Your task to perform on an android device: toggle airplane mode Image 0: 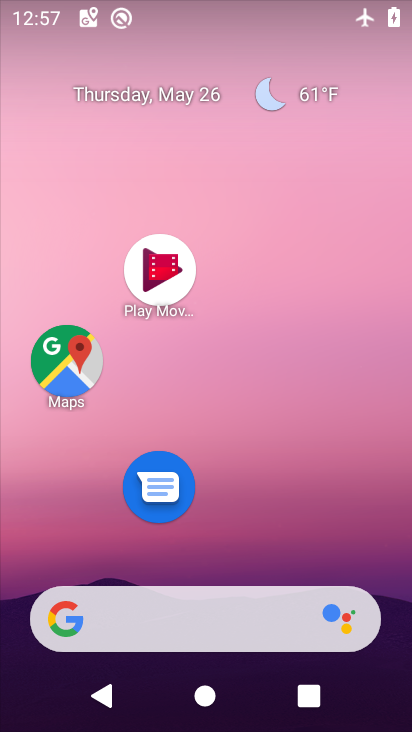
Step 0: drag from (274, 716) to (264, 261)
Your task to perform on an android device: toggle airplane mode Image 1: 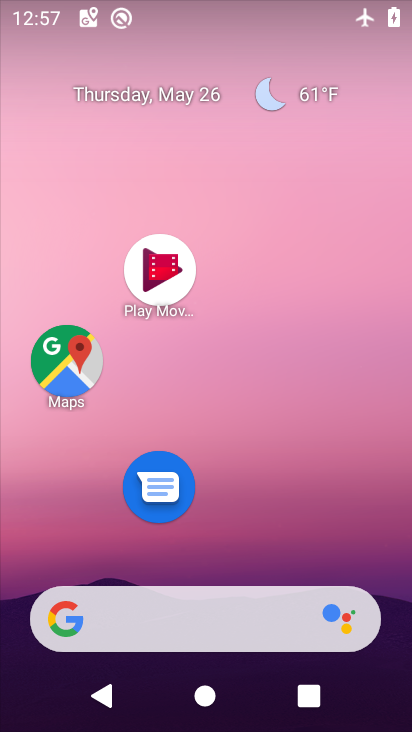
Step 1: drag from (222, 296) to (207, 154)
Your task to perform on an android device: toggle airplane mode Image 2: 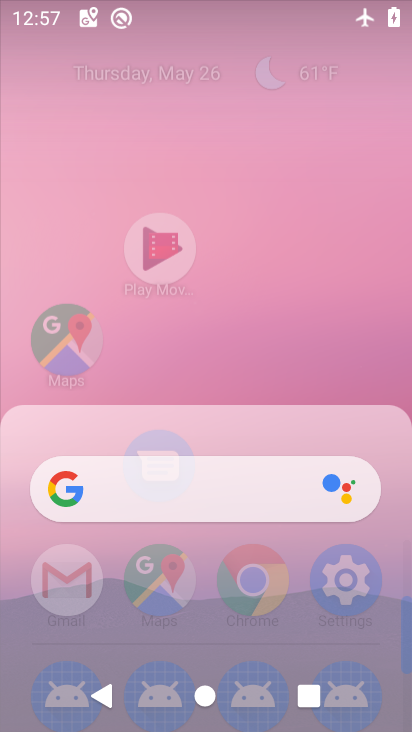
Step 2: click (246, 130)
Your task to perform on an android device: toggle airplane mode Image 3: 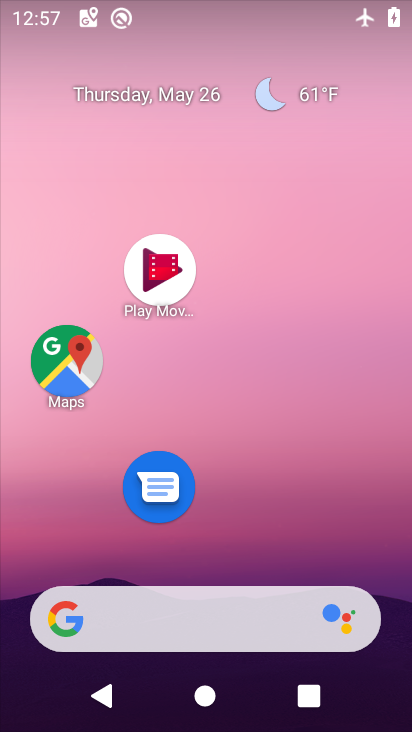
Step 3: drag from (245, 264) to (184, 9)
Your task to perform on an android device: toggle airplane mode Image 4: 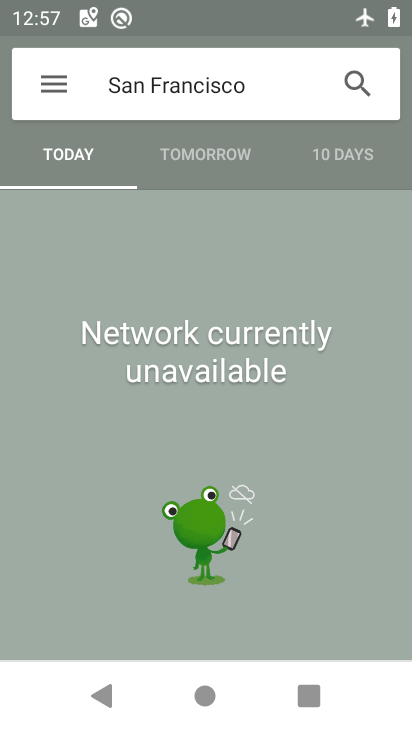
Step 4: press back button
Your task to perform on an android device: toggle airplane mode Image 5: 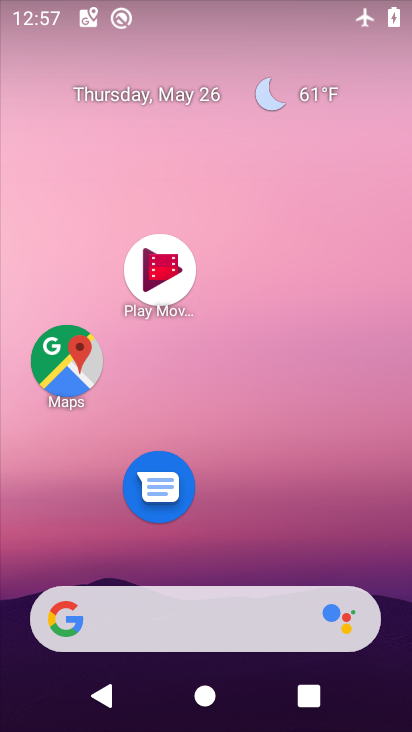
Step 5: drag from (253, 678) to (179, 65)
Your task to perform on an android device: toggle airplane mode Image 6: 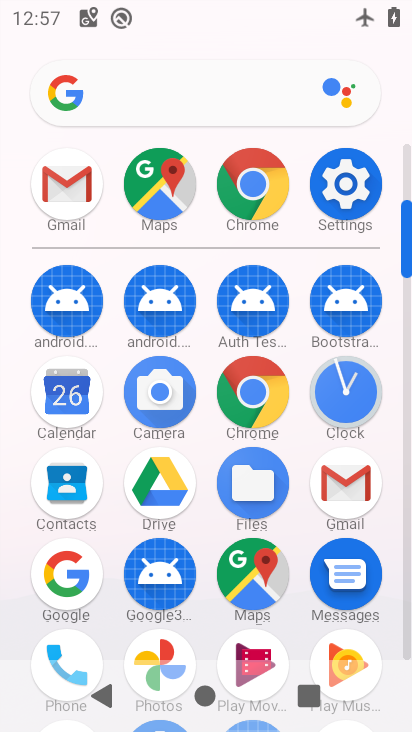
Step 6: click (352, 200)
Your task to perform on an android device: toggle airplane mode Image 7: 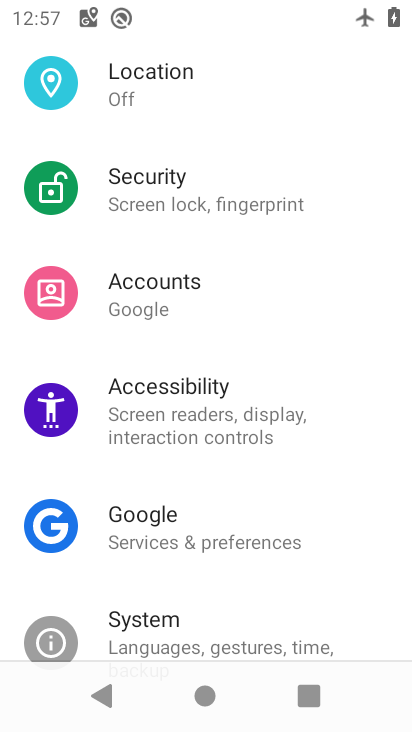
Step 7: drag from (151, 158) to (192, 463)
Your task to perform on an android device: toggle airplane mode Image 8: 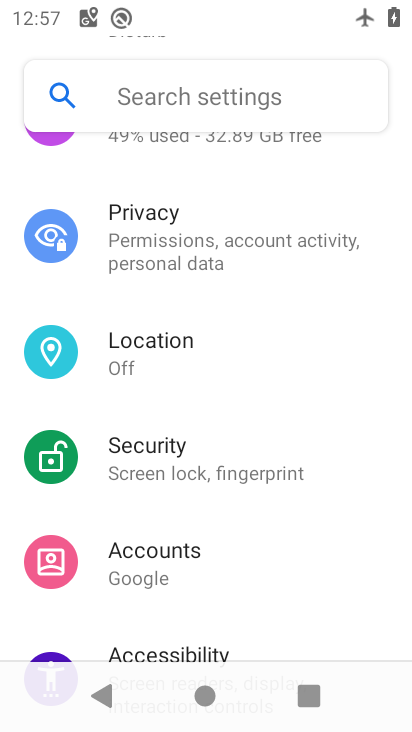
Step 8: drag from (143, 160) to (181, 442)
Your task to perform on an android device: toggle airplane mode Image 9: 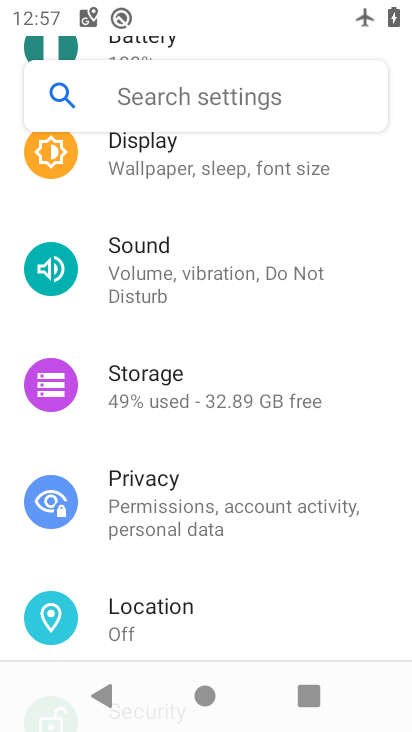
Step 9: drag from (193, 176) to (196, 522)
Your task to perform on an android device: toggle airplane mode Image 10: 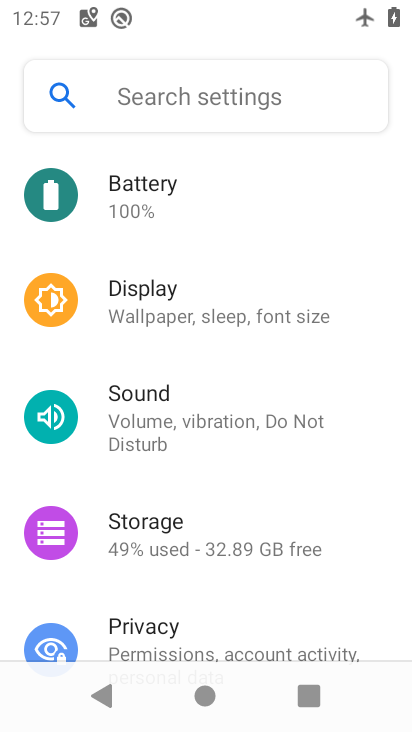
Step 10: drag from (206, 232) to (210, 555)
Your task to perform on an android device: toggle airplane mode Image 11: 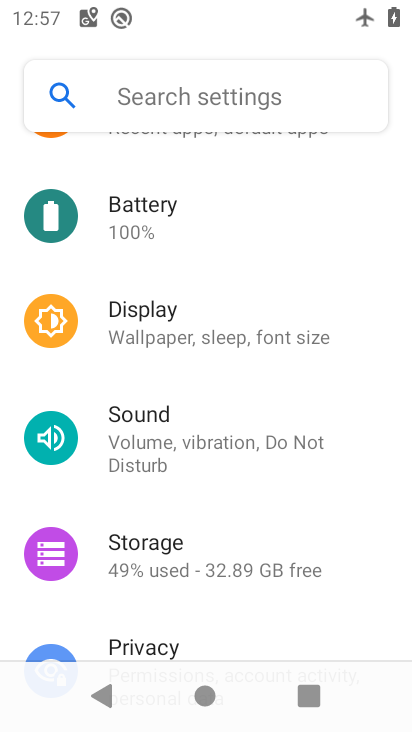
Step 11: drag from (138, 196) to (151, 567)
Your task to perform on an android device: toggle airplane mode Image 12: 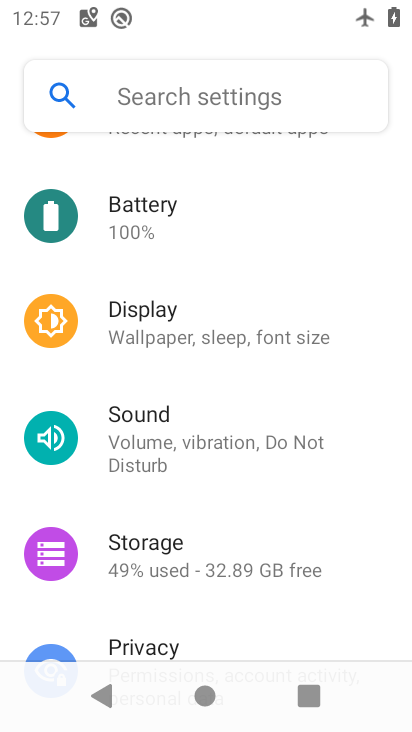
Step 12: drag from (143, 247) to (173, 642)
Your task to perform on an android device: toggle airplane mode Image 13: 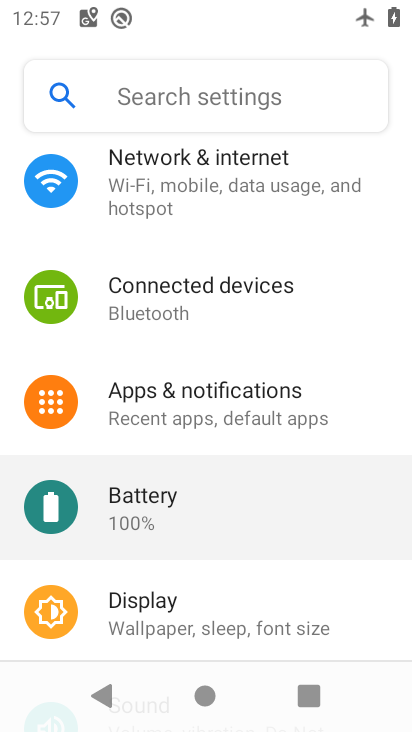
Step 13: drag from (162, 344) to (189, 505)
Your task to perform on an android device: toggle airplane mode Image 14: 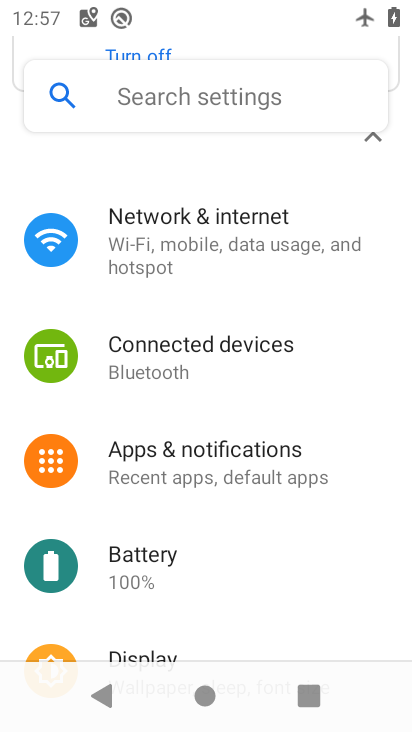
Step 14: drag from (177, 249) to (226, 541)
Your task to perform on an android device: toggle airplane mode Image 15: 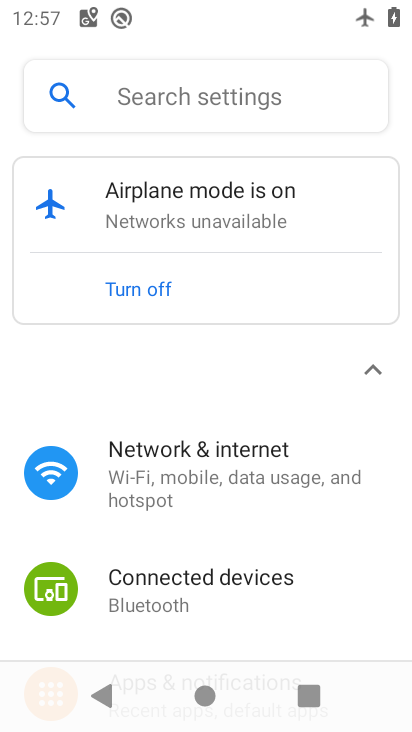
Step 15: click (192, 237)
Your task to perform on an android device: toggle airplane mode Image 16: 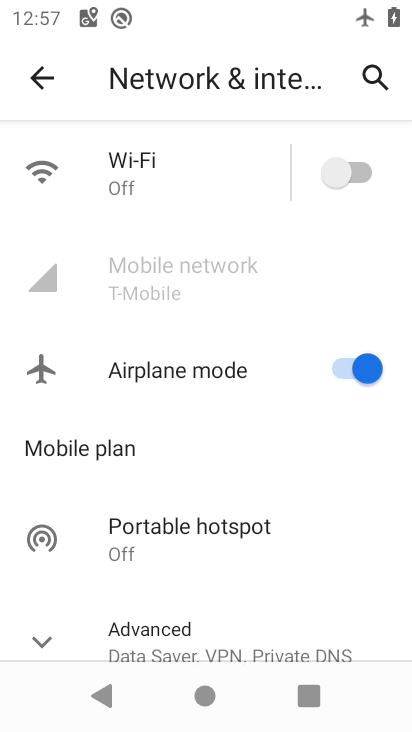
Step 16: click (341, 163)
Your task to perform on an android device: toggle airplane mode Image 17: 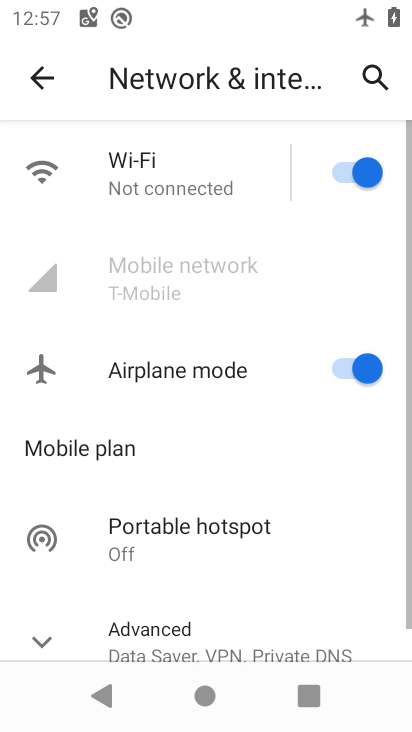
Step 17: click (371, 370)
Your task to perform on an android device: toggle airplane mode Image 18: 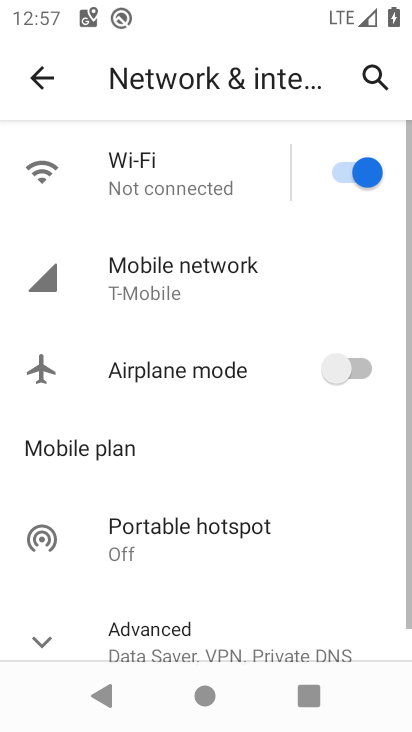
Step 18: click (379, 159)
Your task to perform on an android device: toggle airplane mode Image 19: 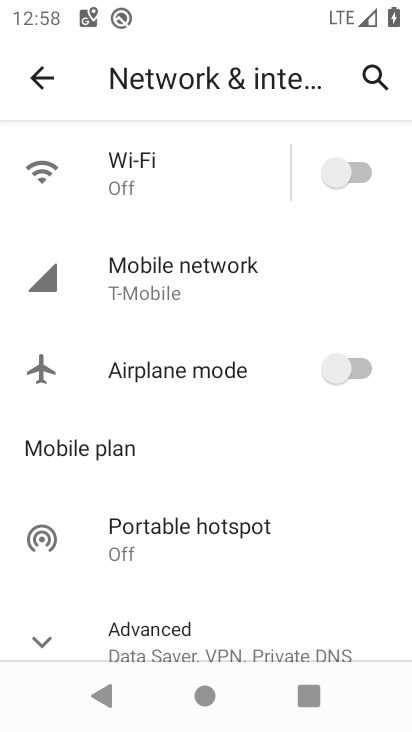
Step 19: task complete